Your task to perform on an android device: open app "Google Play services" Image 0: 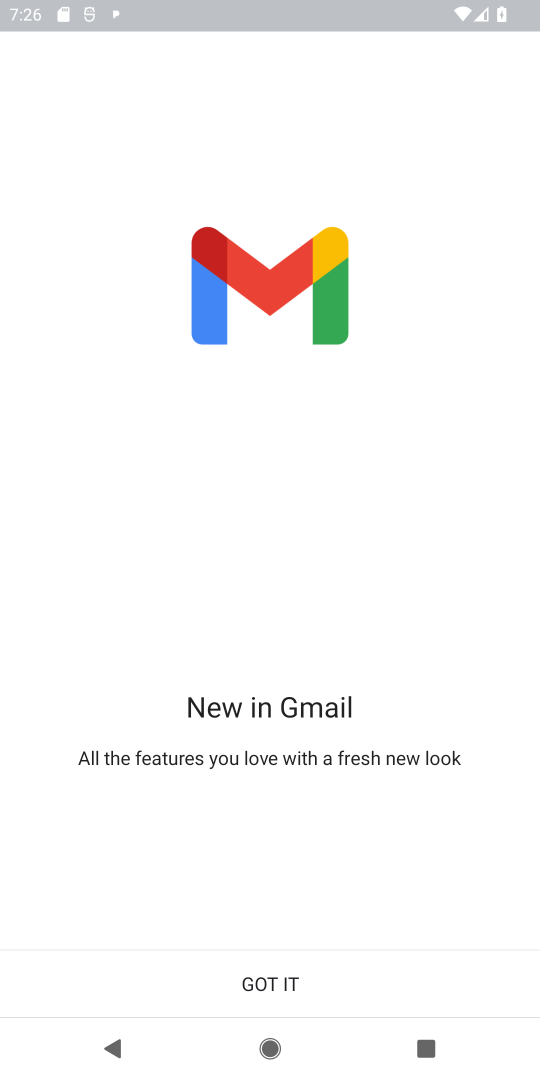
Step 0: press home button
Your task to perform on an android device: open app "Google Play services" Image 1: 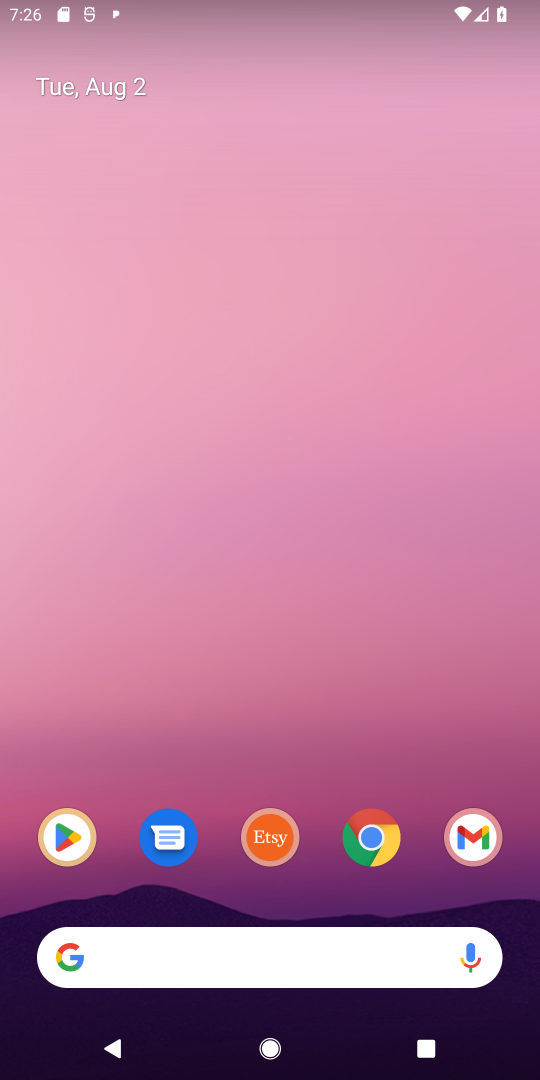
Step 1: click (65, 843)
Your task to perform on an android device: open app "Google Play services" Image 2: 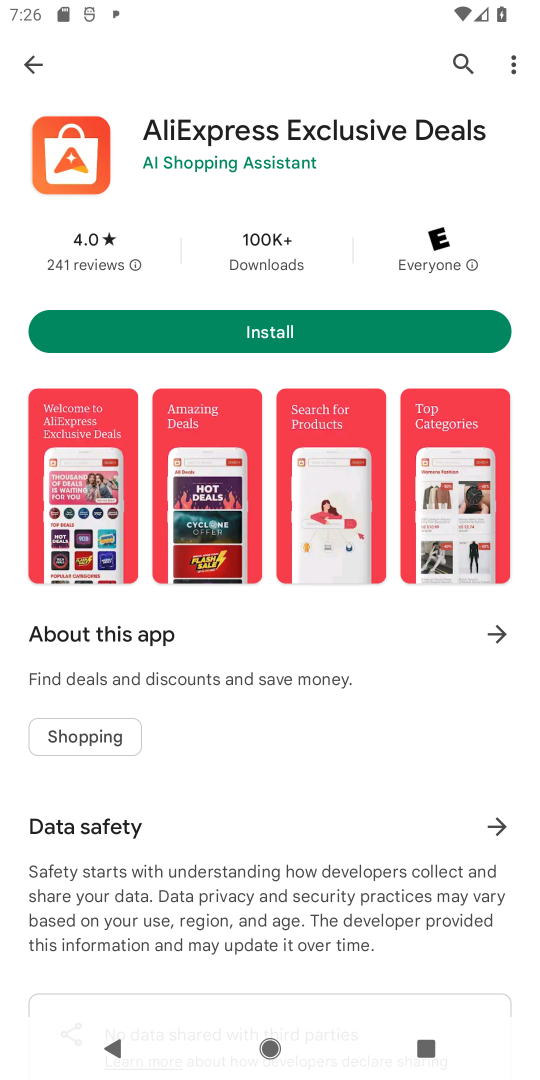
Step 2: click (461, 53)
Your task to perform on an android device: open app "Google Play services" Image 3: 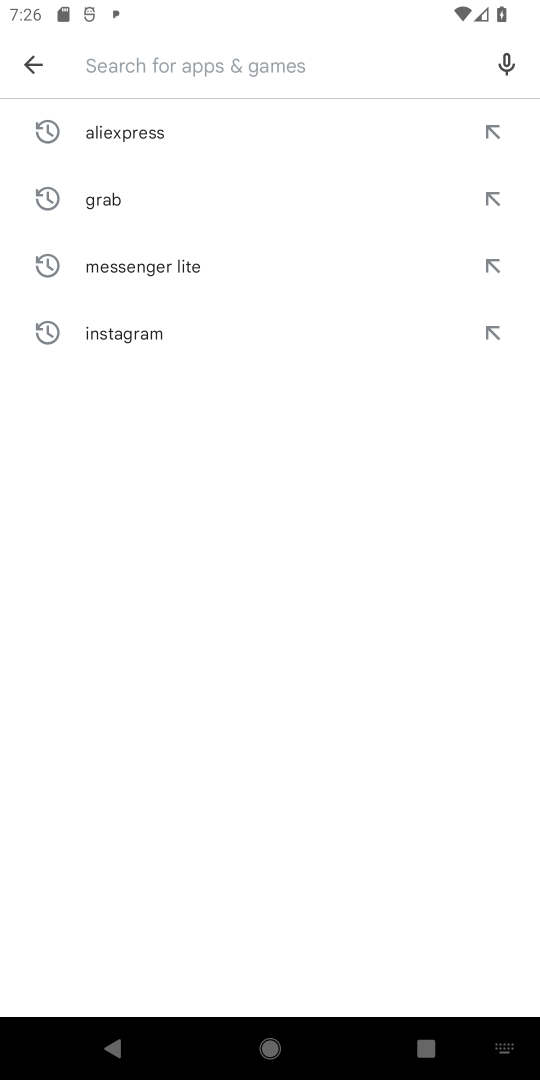
Step 3: type "Google Play services"
Your task to perform on an android device: open app "Google Play services" Image 4: 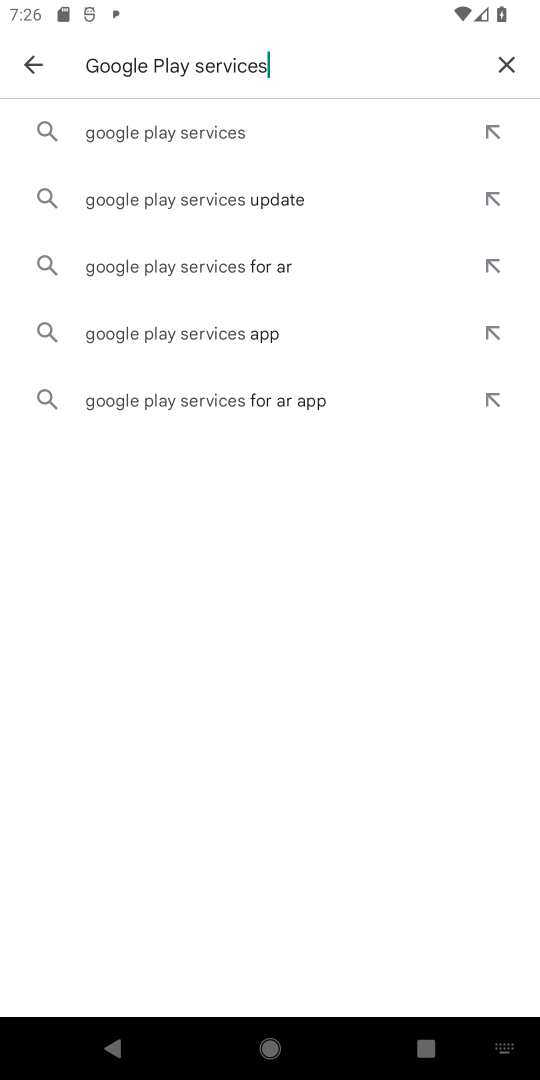
Step 4: click (147, 133)
Your task to perform on an android device: open app "Google Play services" Image 5: 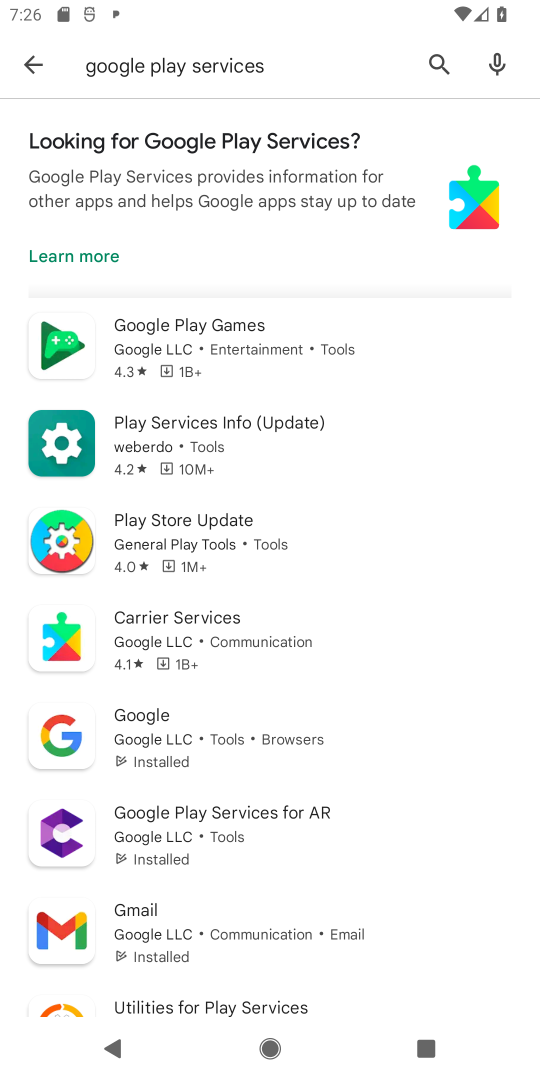
Step 5: click (157, 815)
Your task to perform on an android device: open app "Google Play services" Image 6: 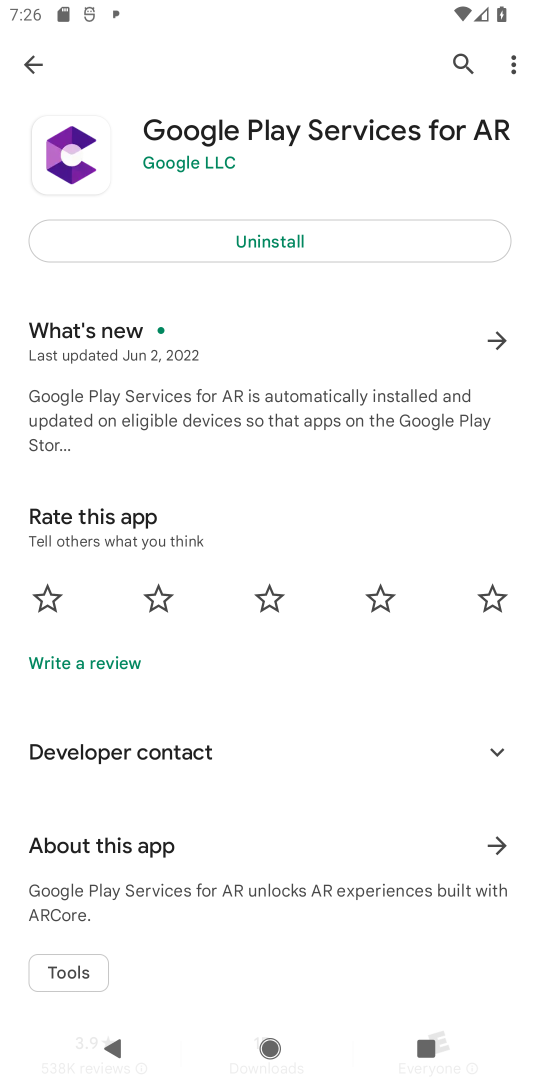
Step 6: click (232, 140)
Your task to perform on an android device: open app "Google Play services" Image 7: 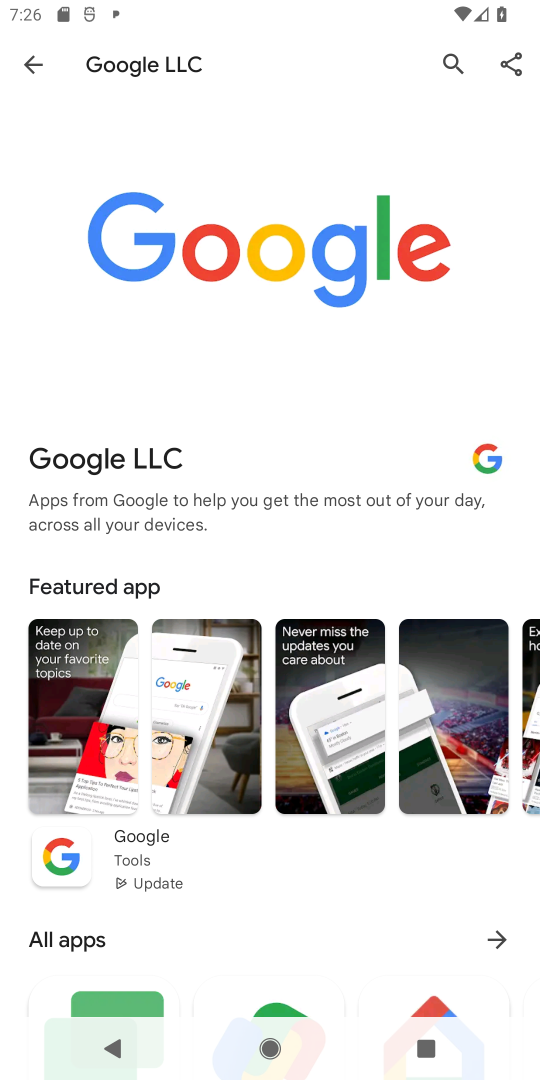
Step 7: task complete